Your task to perform on an android device: make emails show in primary in the gmail app Image 0: 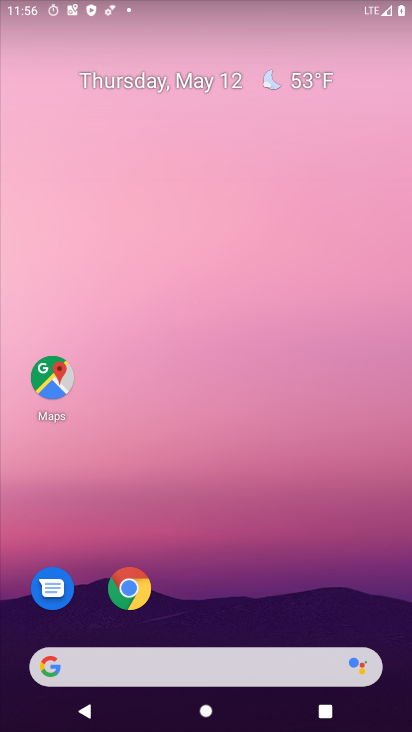
Step 0: drag from (251, 531) to (252, 121)
Your task to perform on an android device: make emails show in primary in the gmail app Image 1: 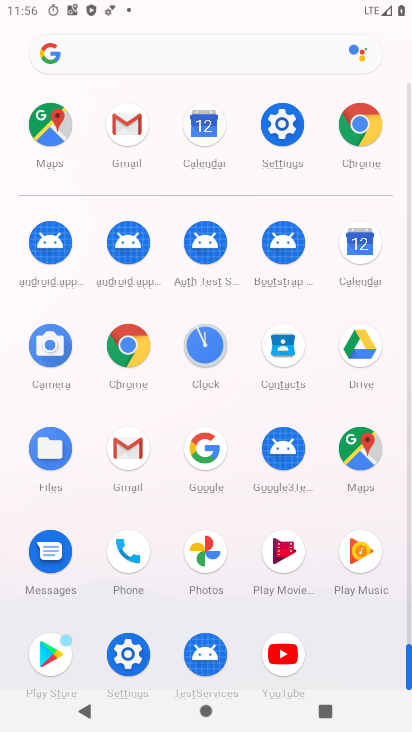
Step 1: click (116, 139)
Your task to perform on an android device: make emails show in primary in the gmail app Image 2: 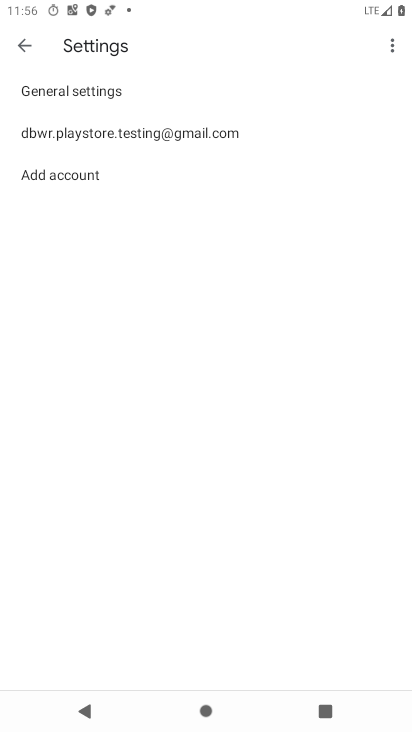
Step 2: click (73, 141)
Your task to perform on an android device: make emails show in primary in the gmail app Image 3: 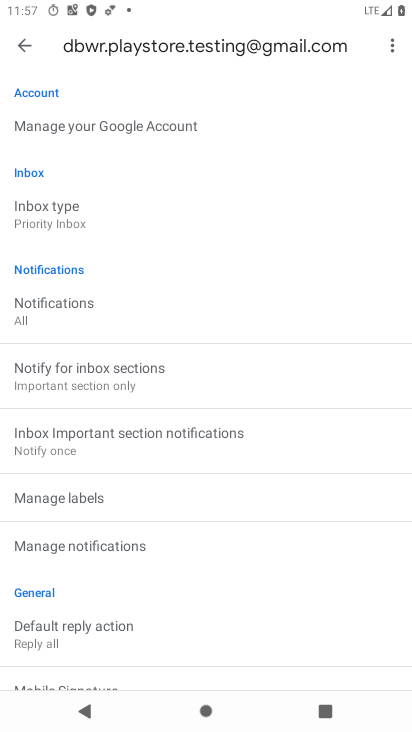
Step 3: click (76, 231)
Your task to perform on an android device: make emails show in primary in the gmail app Image 4: 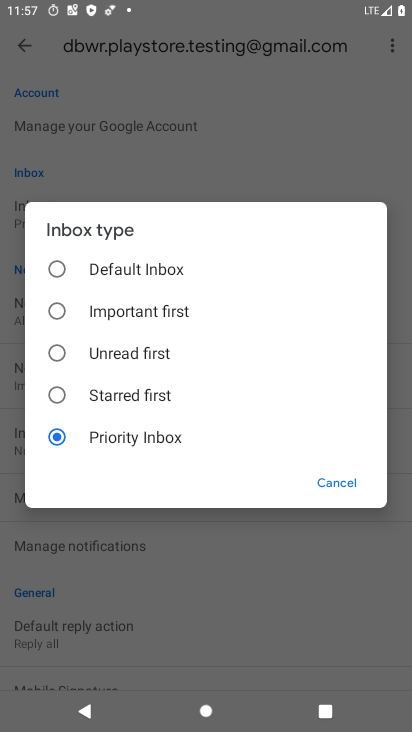
Step 4: click (135, 281)
Your task to perform on an android device: make emails show in primary in the gmail app Image 5: 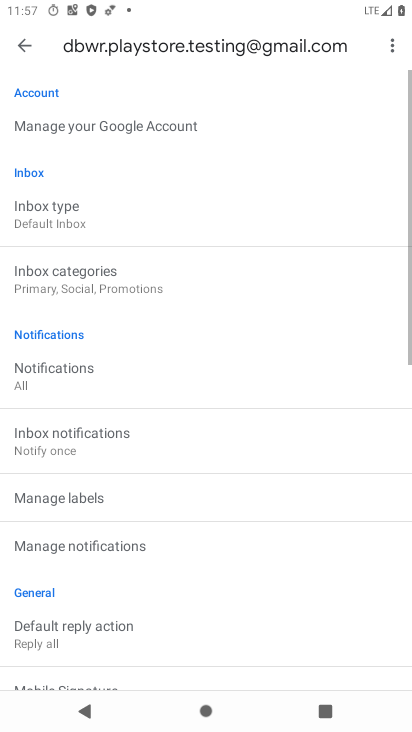
Step 5: click (123, 291)
Your task to perform on an android device: make emails show in primary in the gmail app Image 6: 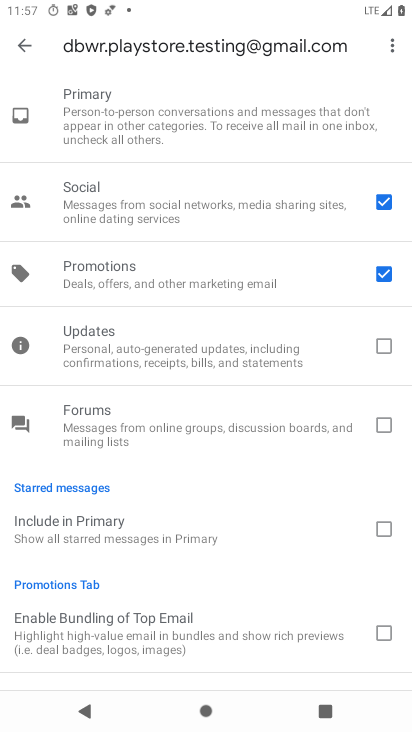
Step 6: task complete